Your task to perform on an android device: open app "ZOOM Cloud Meetings" Image 0: 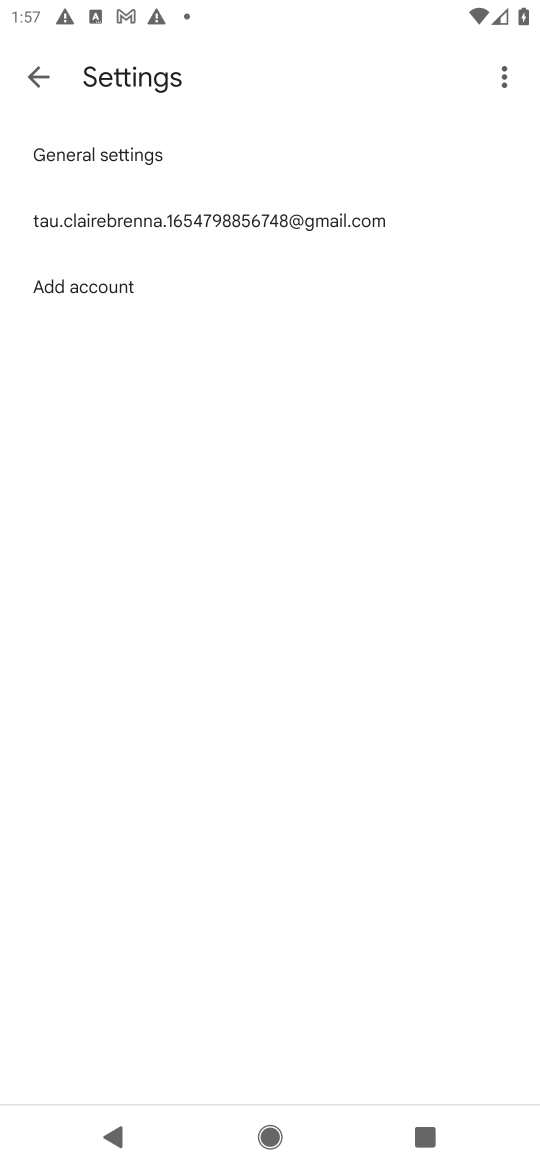
Step 0: press home button
Your task to perform on an android device: open app "ZOOM Cloud Meetings" Image 1: 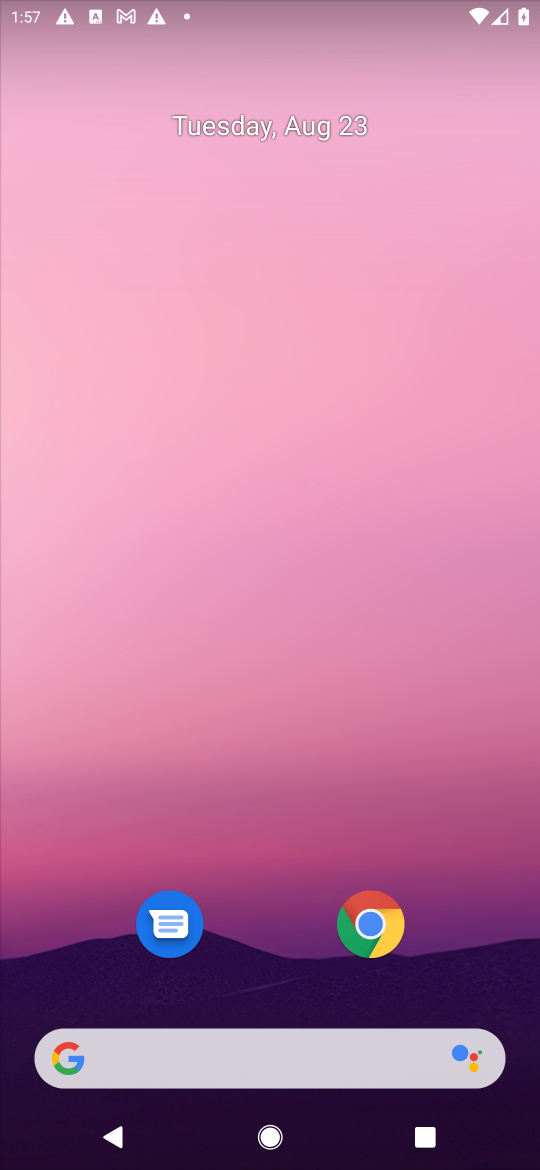
Step 1: drag from (292, 928) to (306, 227)
Your task to perform on an android device: open app "ZOOM Cloud Meetings" Image 2: 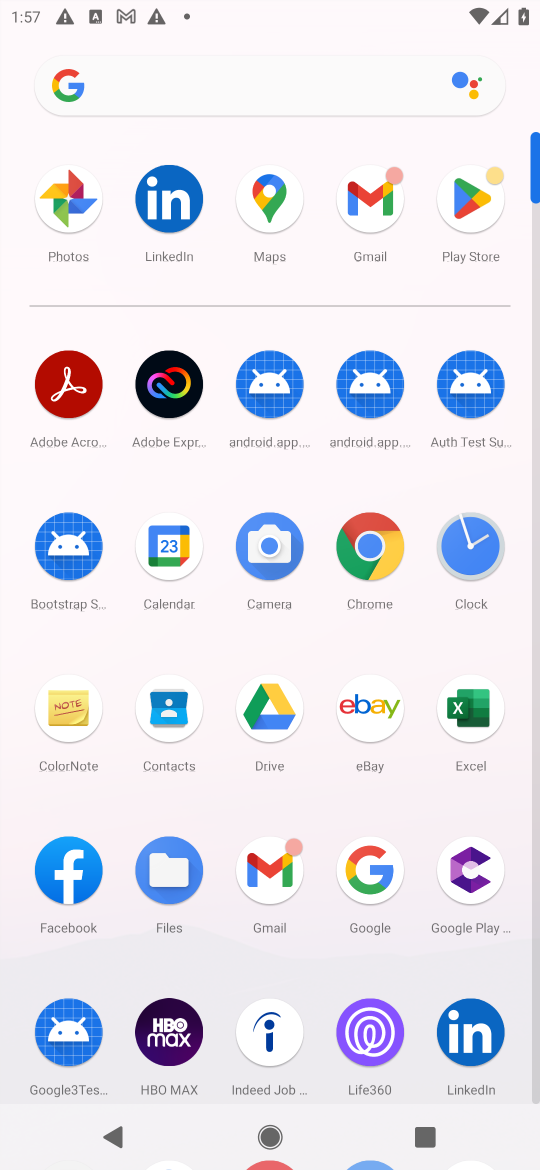
Step 2: click (475, 207)
Your task to perform on an android device: open app "ZOOM Cloud Meetings" Image 3: 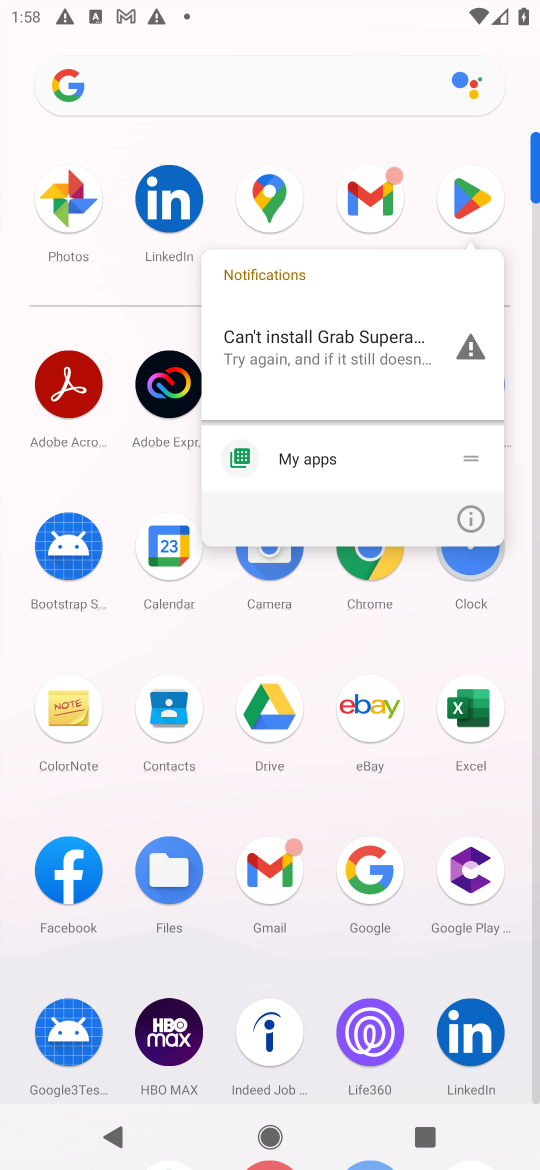
Step 3: click (472, 200)
Your task to perform on an android device: open app "ZOOM Cloud Meetings" Image 4: 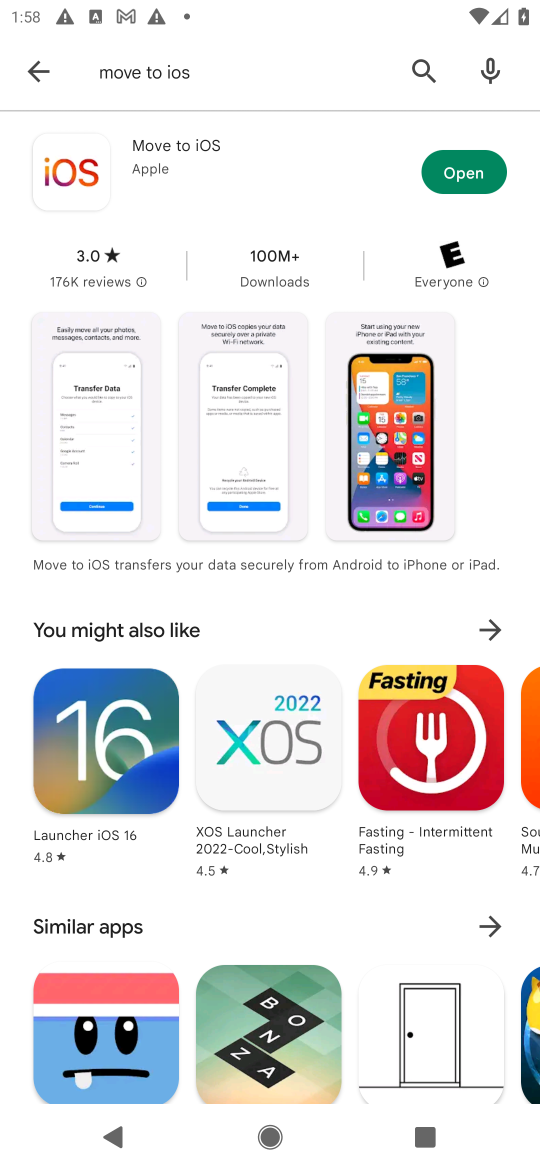
Step 4: press back button
Your task to perform on an android device: open app "ZOOM Cloud Meetings" Image 5: 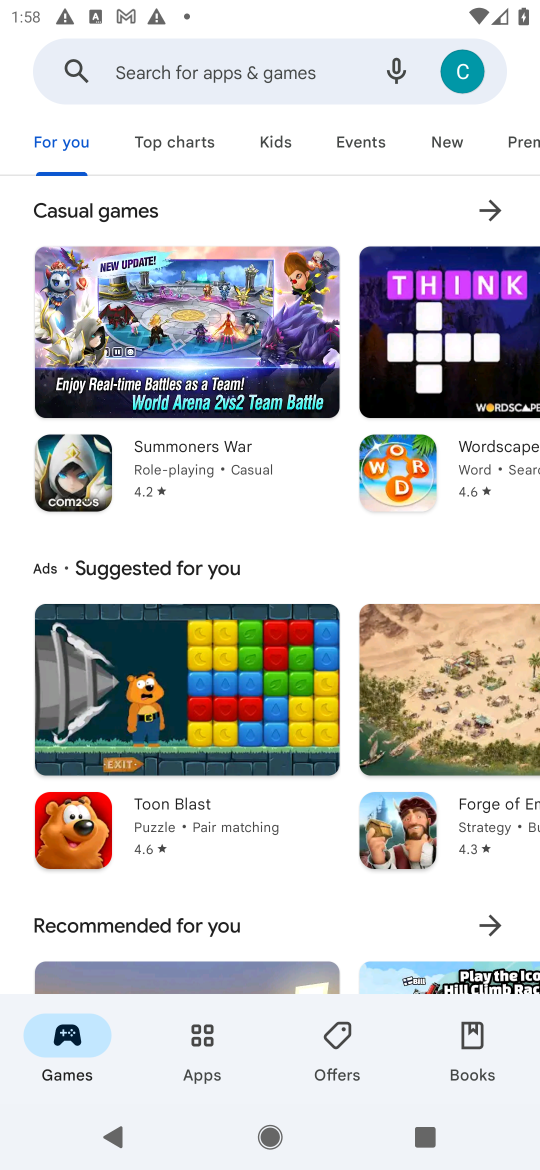
Step 5: click (209, 80)
Your task to perform on an android device: open app "ZOOM Cloud Meetings" Image 6: 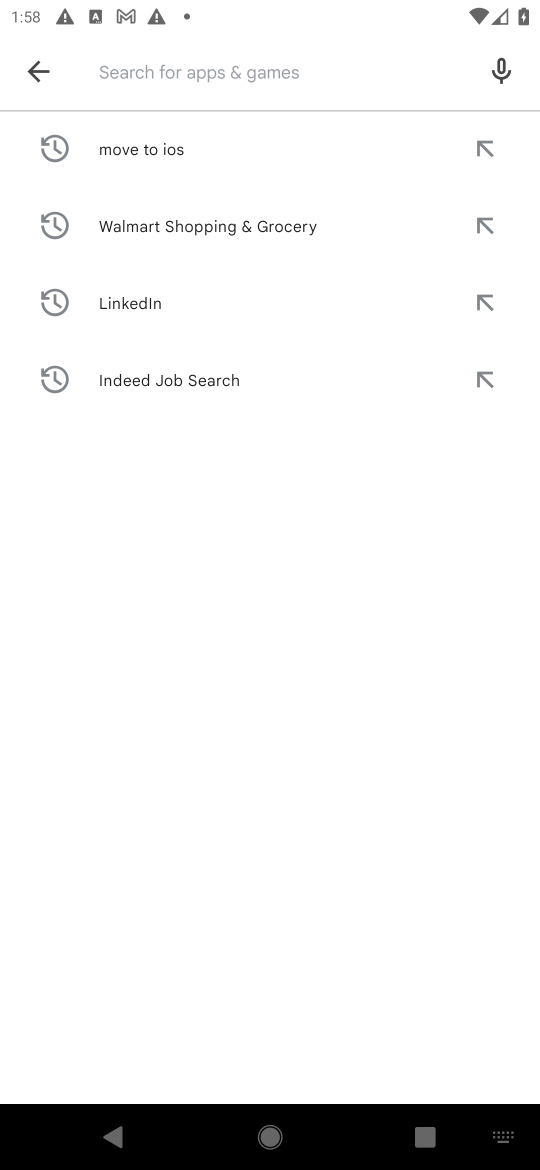
Step 6: type "ZOOM Cloud Meetings"
Your task to perform on an android device: open app "ZOOM Cloud Meetings" Image 7: 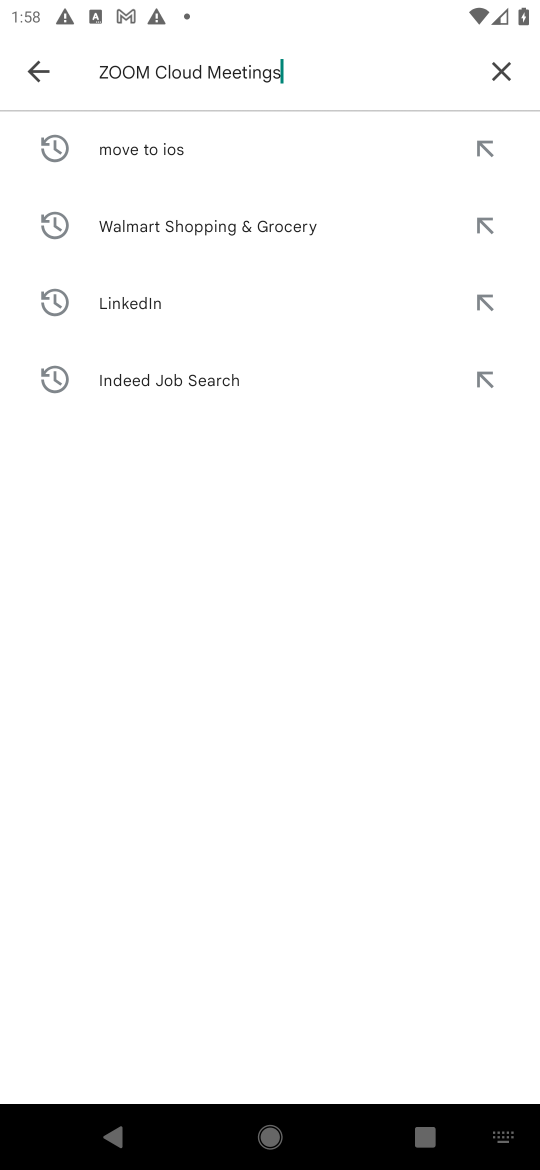
Step 7: press enter
Your task to perform on an android device: open app "ZOOM Cloud Meetings" Image 8: 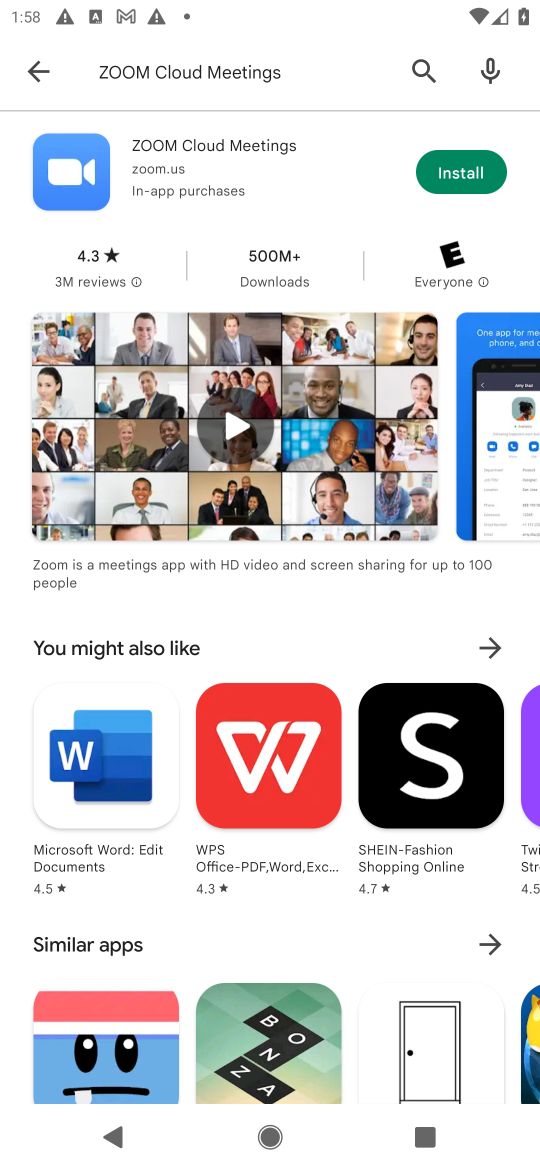
Step 8: task complete